Your task to perform on an android device: open app "Fetch Rewards" (install if not already installed) and enter user name: "Westwood@yahoo.com" and password: "qualifying" Image 0: 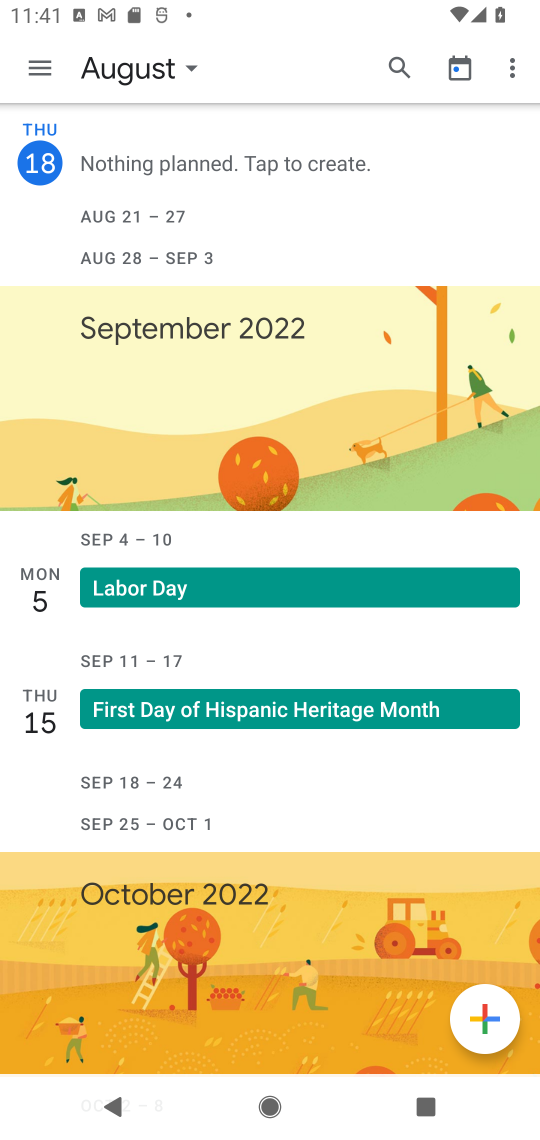
Step 0: press home button
Your task to perform on an android device: open app "Fetch Rewards" (install if not already installed) and enter user name: "Westwood@yahoo.com" and password: "qualifying" Image 1: 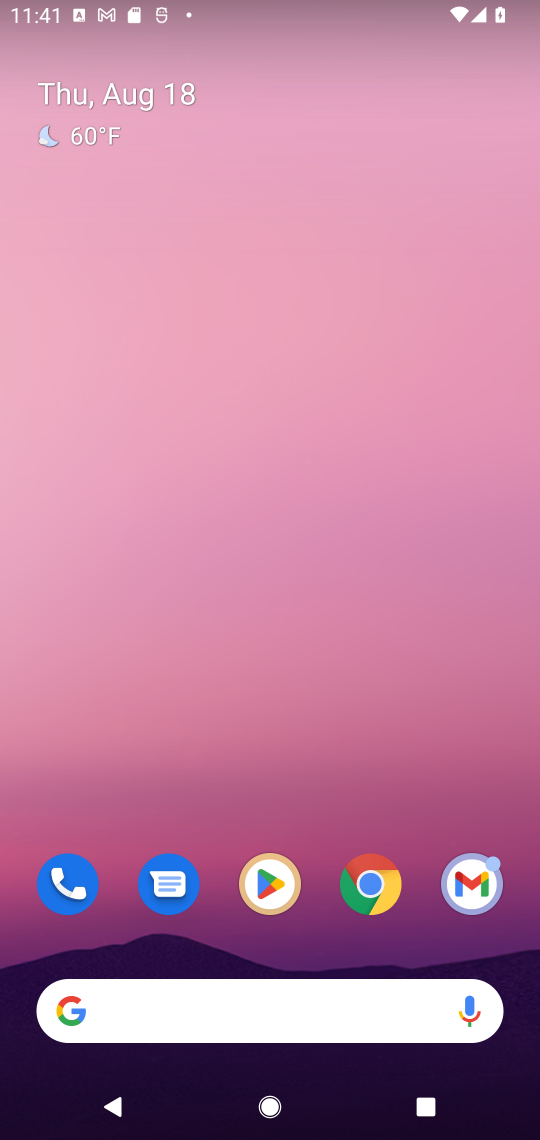
Step 1: drag from (243, 1021) to (208, 152)
Your task to perform on an android device: open app "Fetch Rewards" (install if not already installed) and enter user name: "Westwood@yahoo.com" and password: "qualifying" Image 2: 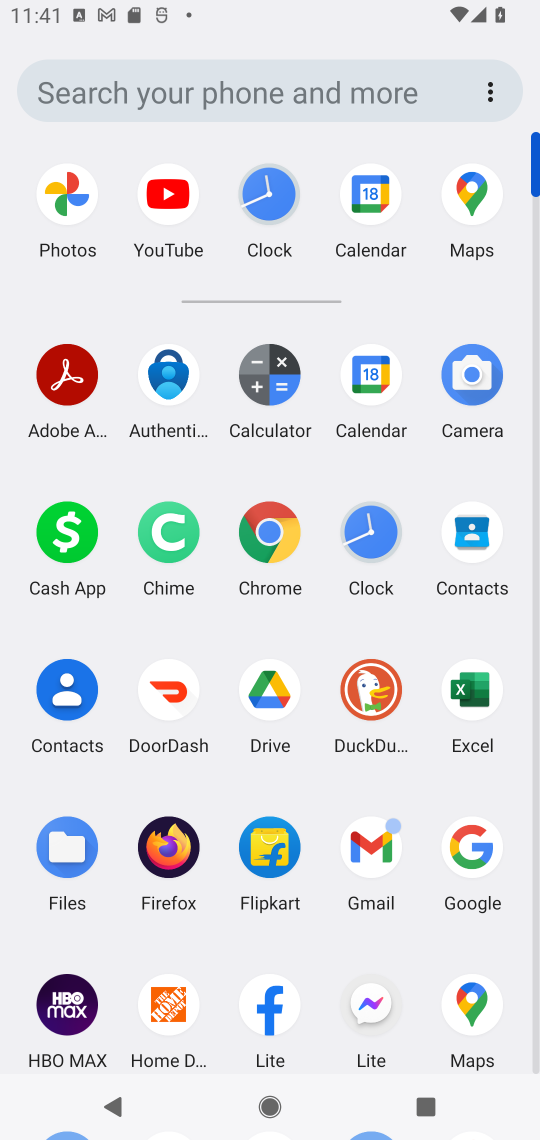
Step 2: drag from (271, 921) to (343, 541)
Your task to perform on an android device: open app "Fetch Rewards" (install if not already installed) and enter user name: "Westwood@yahoo.com" and password: "qualifying" Image 3: 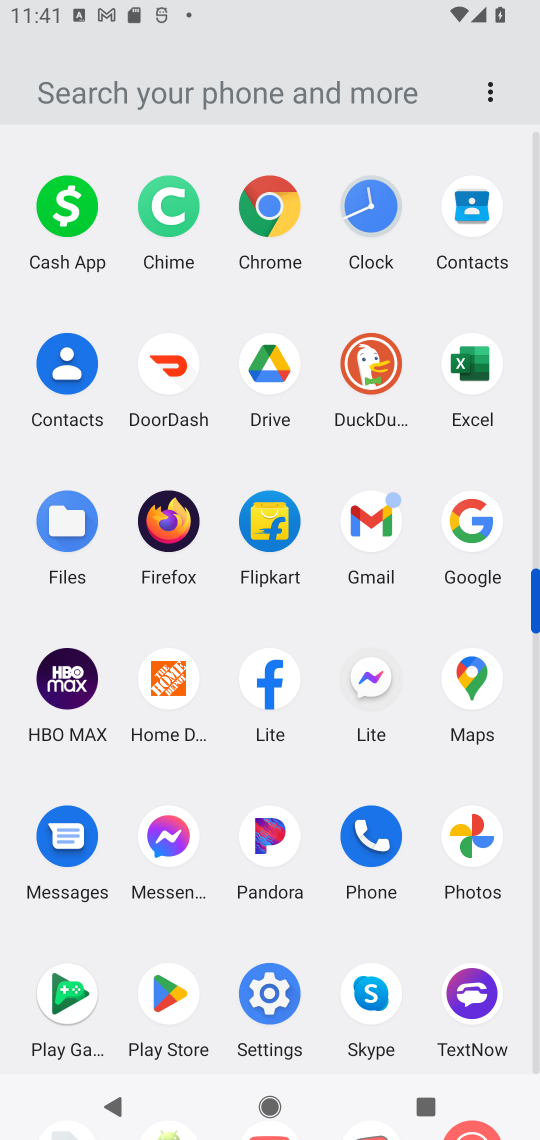
Step 3: click (164, 1003)
Your task to perform on an android device: open app "Fetch Rewards" (install if not already installed) and enter user name: "Westwood@yahoo.com" and password: "qualifying" Image 4: 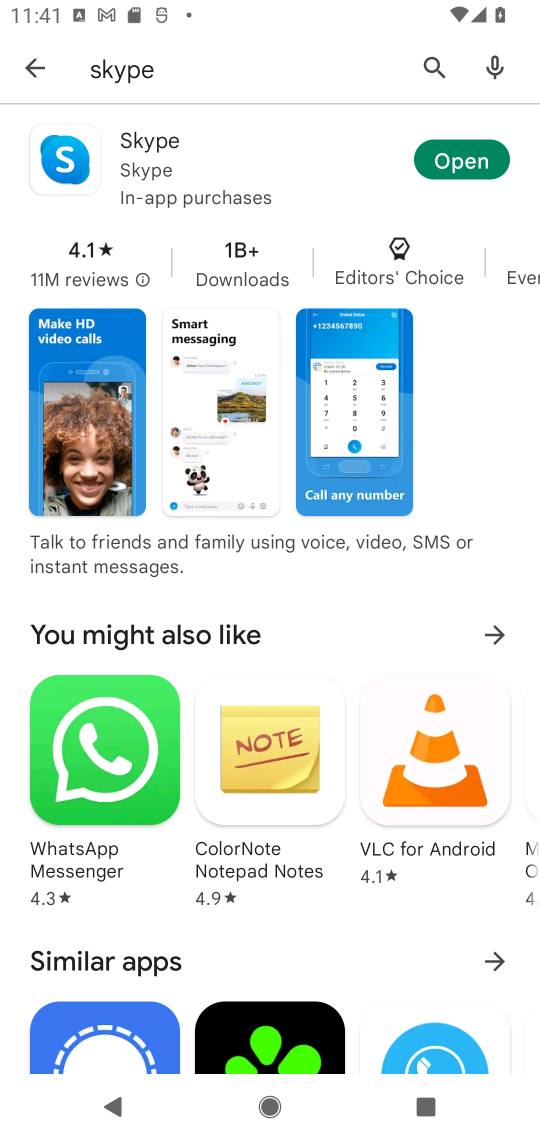
Step 4: press back button
Your task to perform on an android device: open app "Fetch Rewards" (install if not already installed) and enter user name: "Westwood@yahoo.com" and password: "qualifying" Image 5: 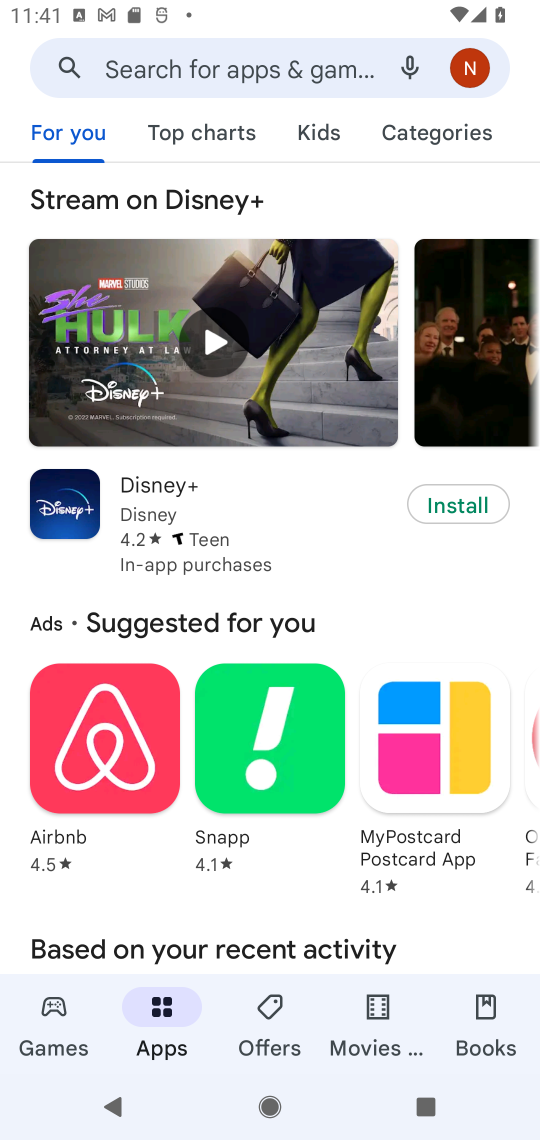
Step 5: click (252, 70)
Your task to perform on an android device: open app "Fetch Rewards" (install if not already installed) and enter user name: "Westwood@yahoo.com" and password: "qualifying" Image 6: 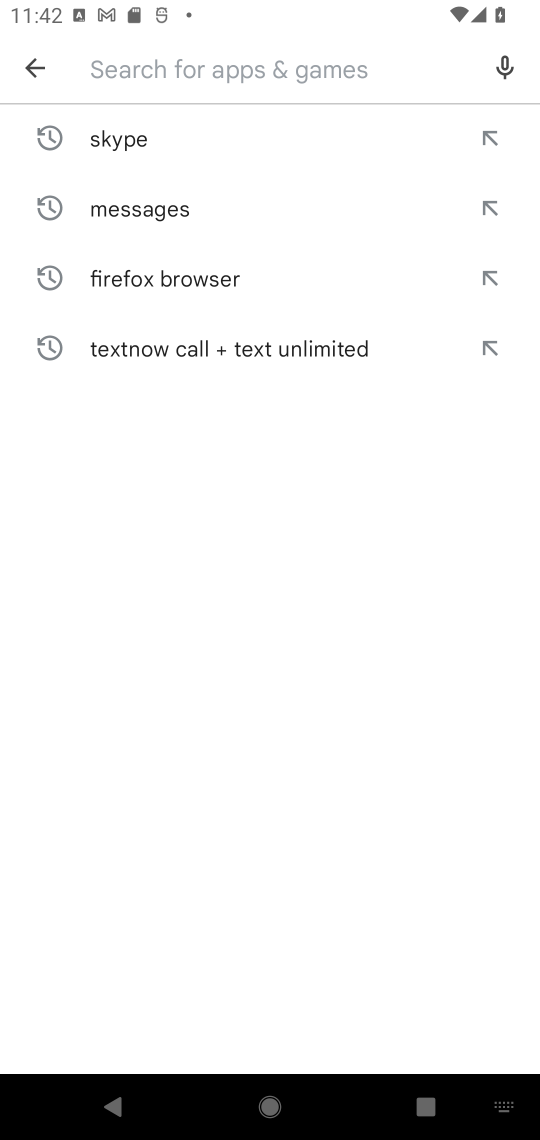
Step 6: type "Fetch Rewards"
Your task to perform on an android device: open app "Fetch Rewards" (install if not already installed) and enter user name: "Westwood@yahoo.com" and password: "qualifying" Image 7: 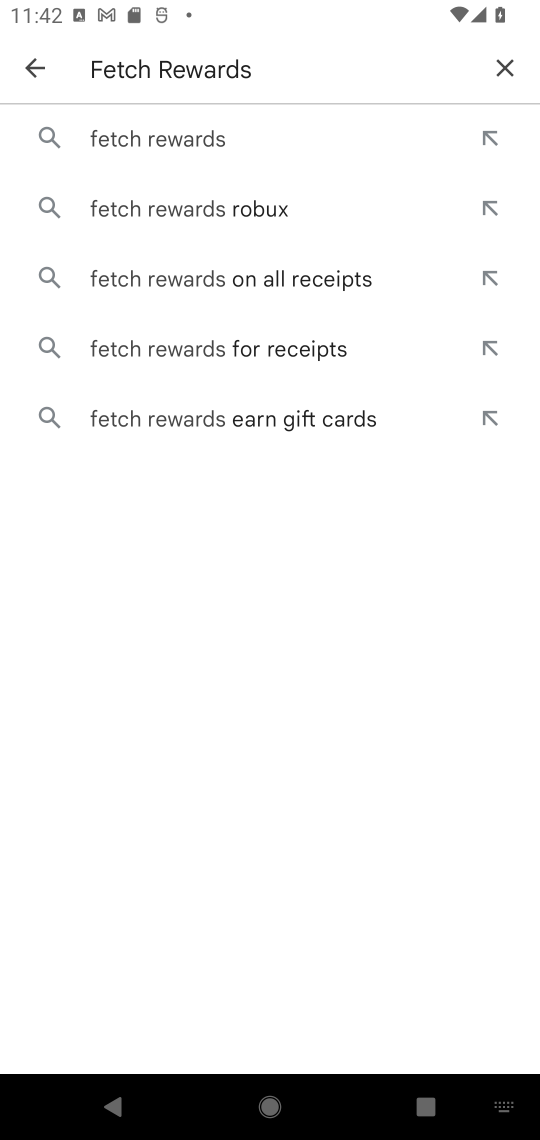
Step 7: click (224, 122)
Your task to perform on an android device: open app "Fetch Rewards" (install if not already installed) and enter user name: "Westwood@yahoo.com" and password: "qualifying" Image 8: 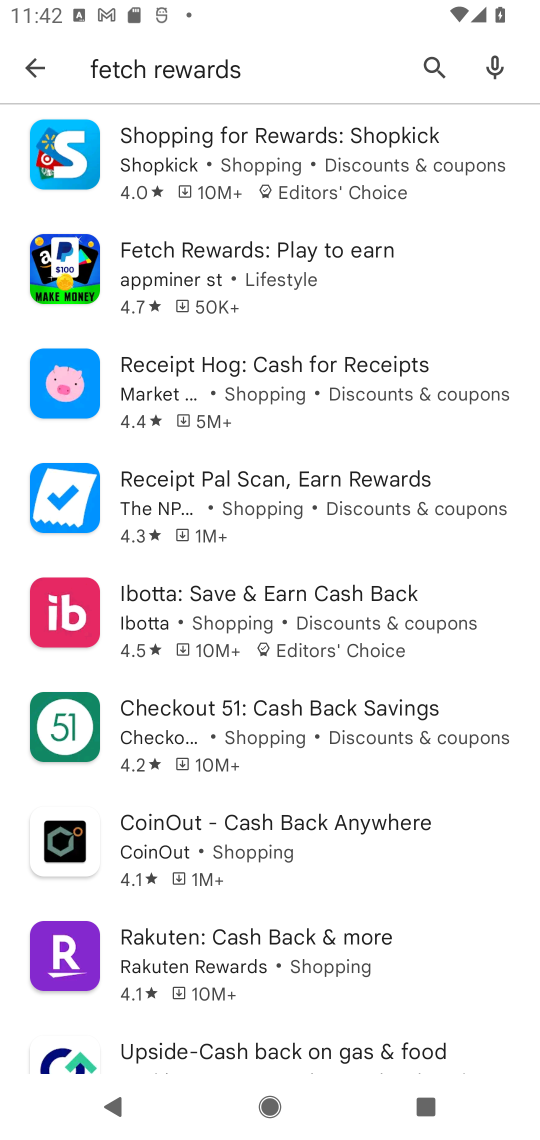
Step 8: click (218, 256)
Your task to perform on an android device: open app "Fetch Rewards" (install if not already installed) and enter user name: "Westwood@yahoo.com" and password: "qualifying" Image 9: 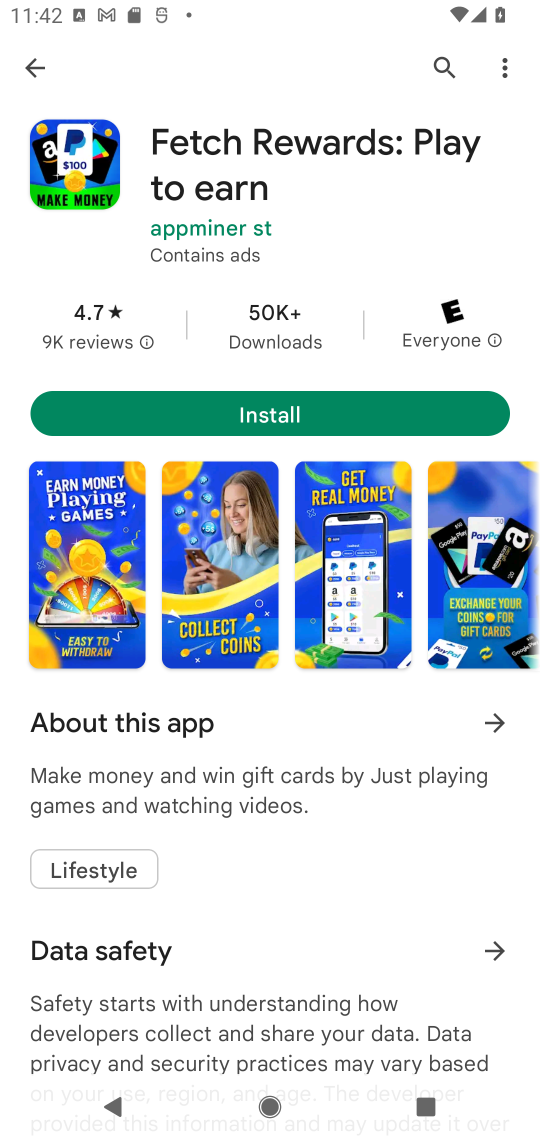
Step 9: click (225, 396)
Your task to perform on an android device: open app "Fetch Rewards" (install if not already installed) and enter user name: "Westwood@yahoo.com" and password: "qualifying" Image 10: 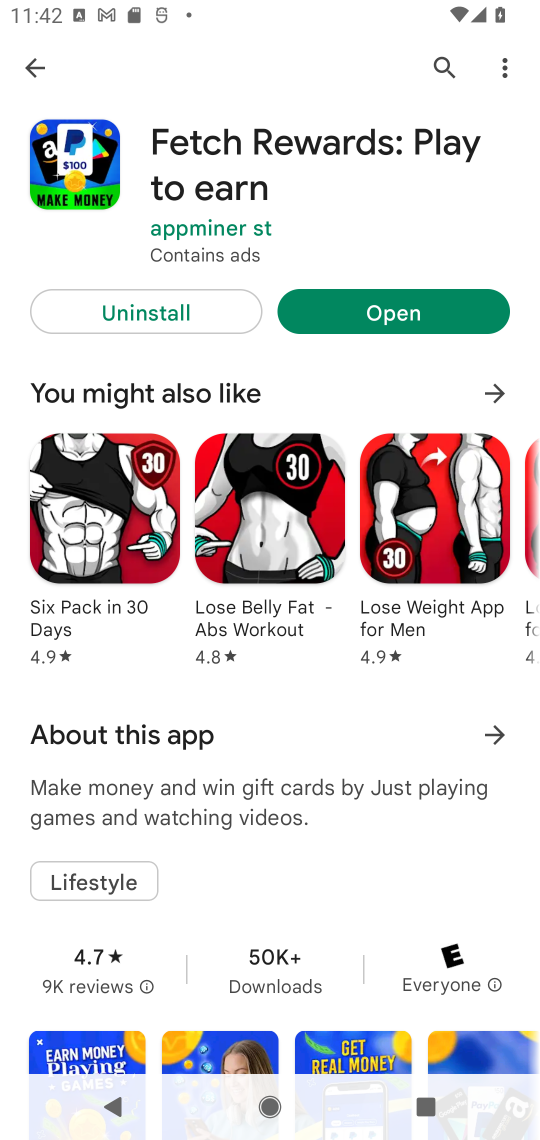
Step 10: click (387, 323)
Your task to perform on an android device: open app "Fetch Rewards" (install if not already installed) and enter user name: "Westwood@yahoo.com" and password: "qualifying" Image 11: 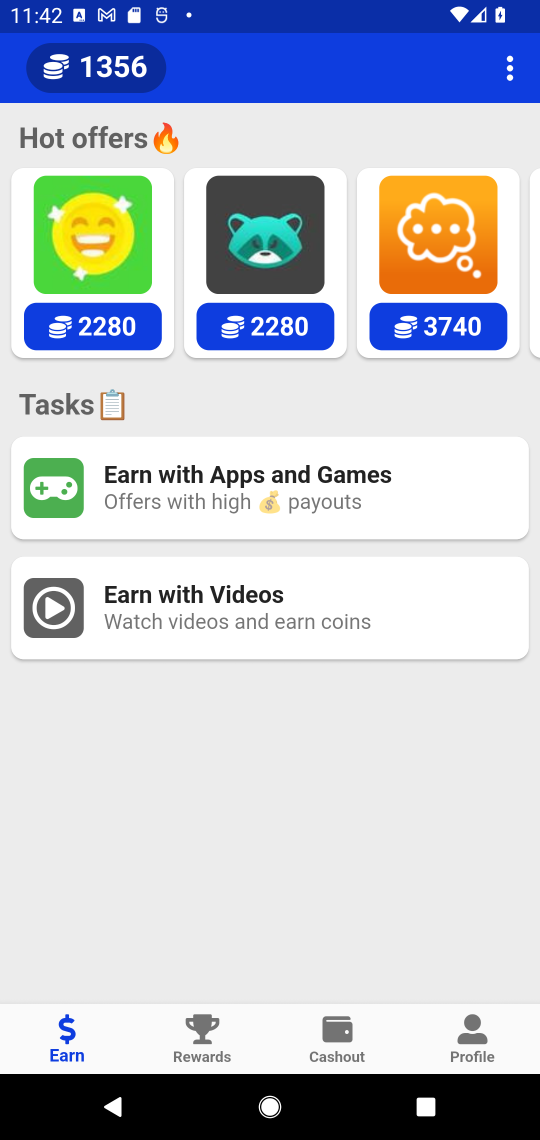
Step 11: task complete